Your task to perform on an android device: What's the weather like in New York? Image 0: 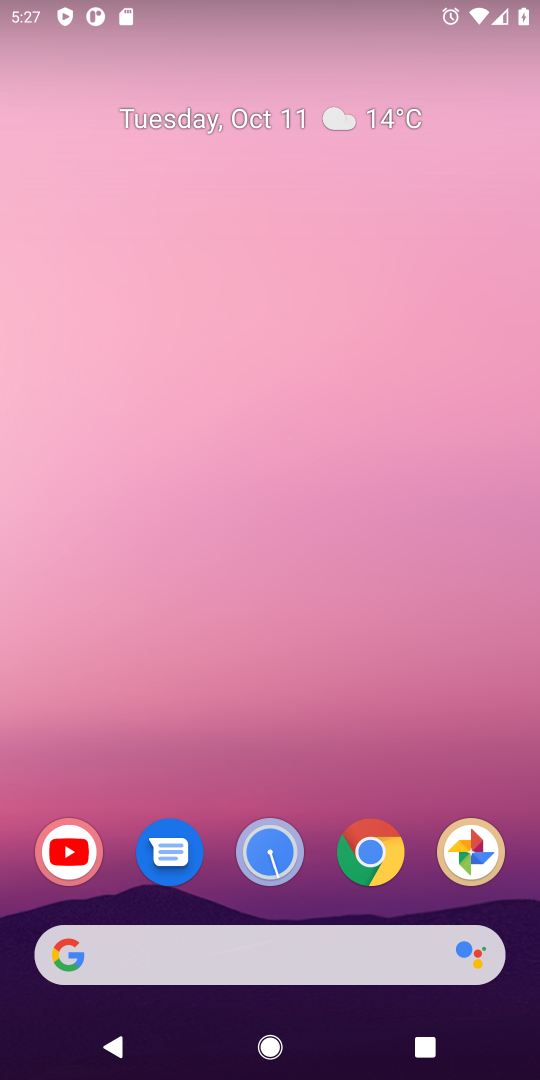
Step 0: click (365, 833)
Your task to perform on an android device: What's the weather like in New York? Image 1: 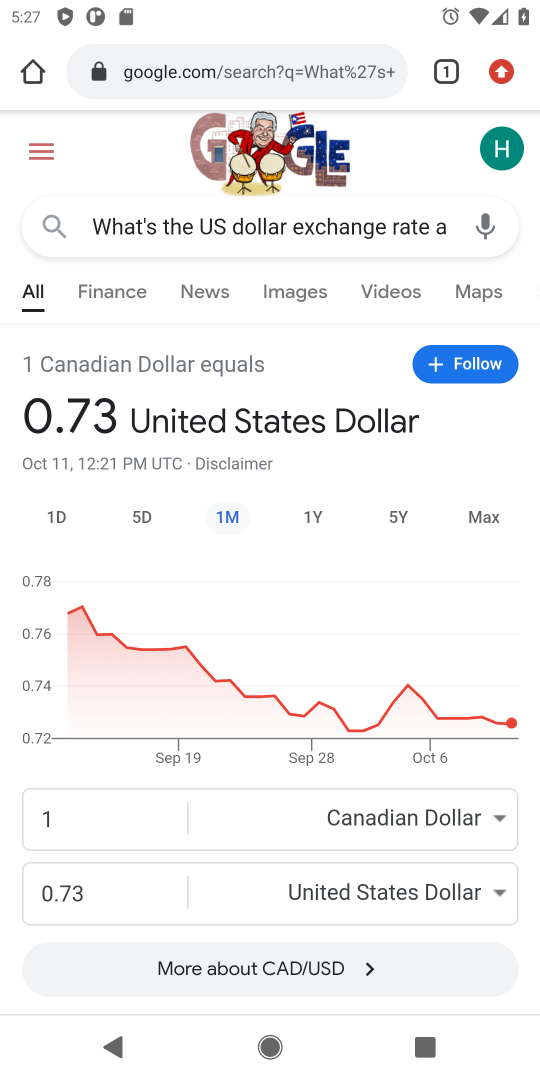
Step 1: click (205, 71)
Your task to perform on an android device: What's the weather like in New York? Image 2: 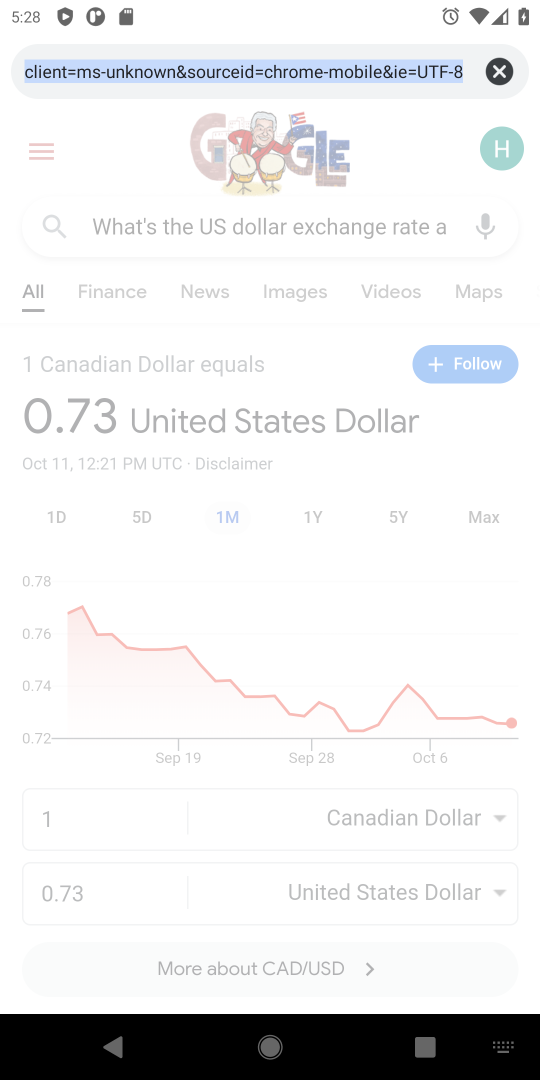
Step 2: type "weather like in New York"
Your task to perform on an android device: What's the weather like in New York? Image 3: 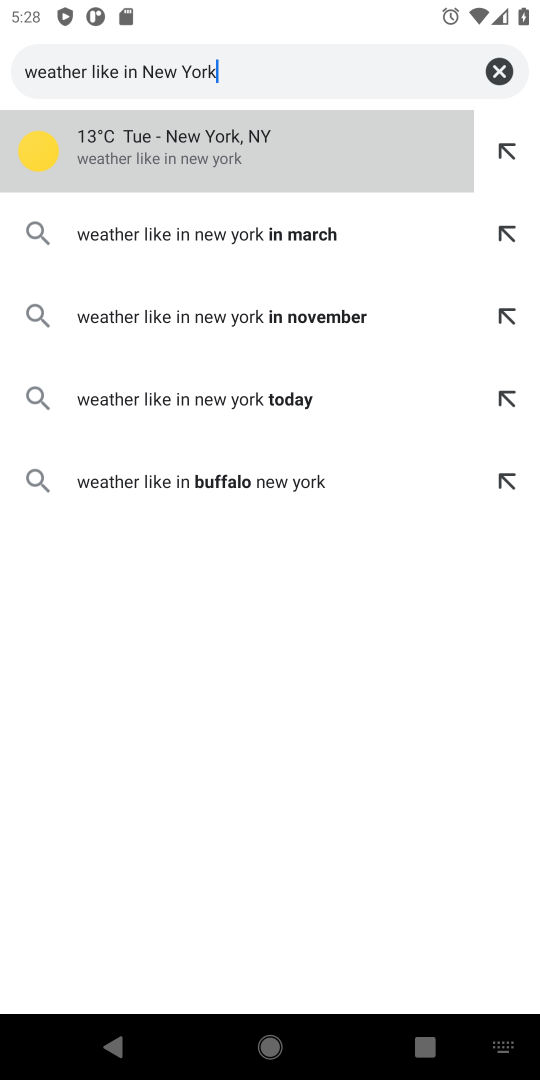
Step 3: click (249, 136)
Your task to perform on an android device: What's the weather like in New York? Image 4: 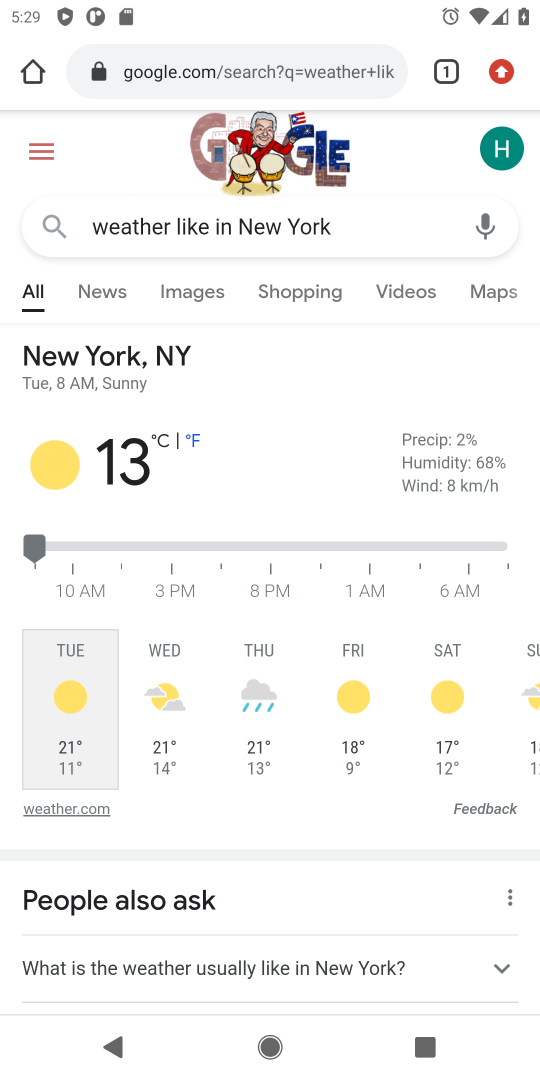
Step 4: click (249, 136)
Your task to perform on an android device: What's the weather like in New York? Image 5: 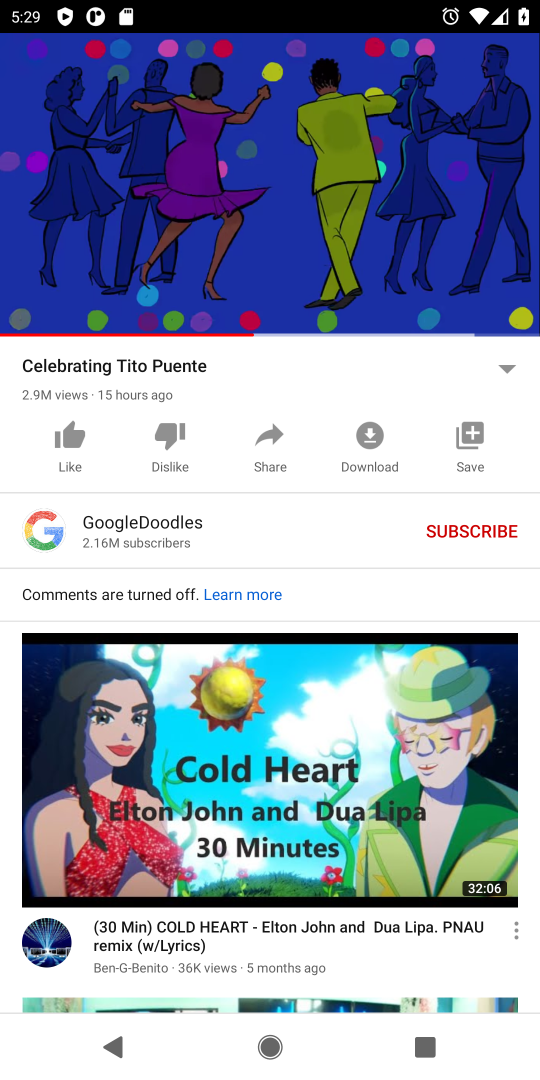
Step 5: press home button
Your task to perform on an android device: What's the weather like in New York? Image 6: 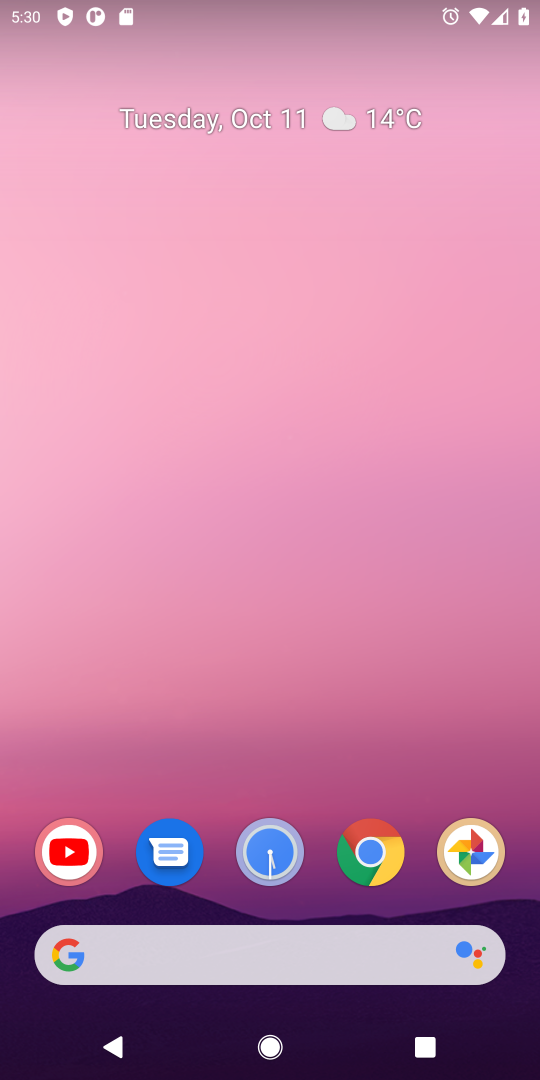
Step 6: click (390, 853)
Your task to perform on an android device: What's the weather like in New York? Image 7: 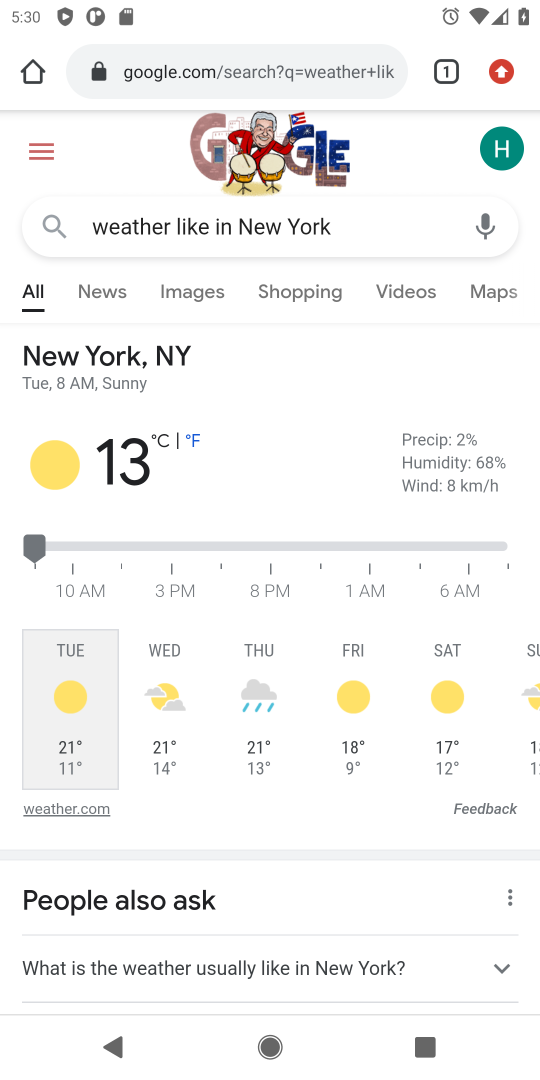
Step 7: task complete